Your task to perform on an android device: change alarm snooze length Image 0: 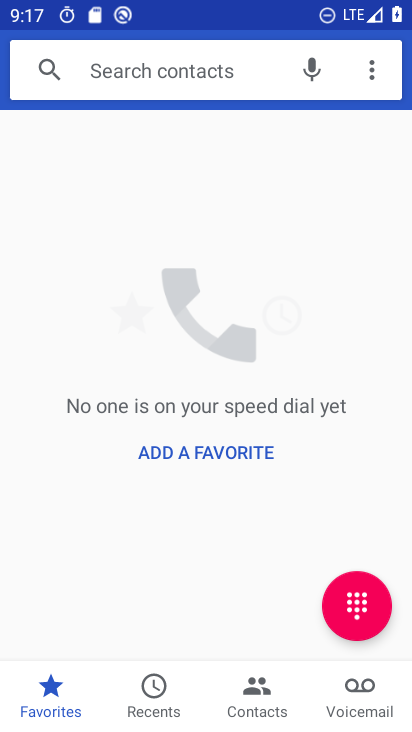
Step 0: press home button
Your task to perform on an android device: change alarm snooze length Image 1: 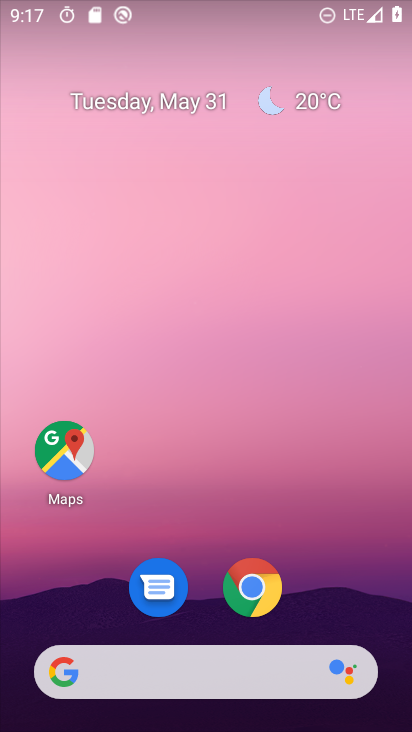
Step 1: drag from (208, 616) to (248, 80)
Your task to perform on an android device: change alarm snooze length Image 2: 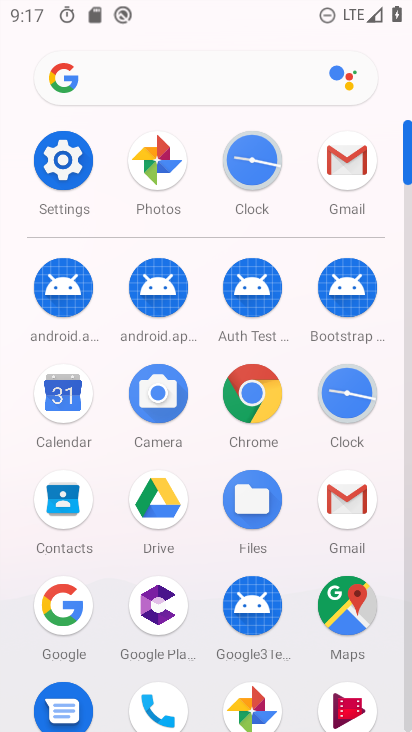
Step 2: click (244, 161)
Your task to perform on an android device: change alarm snooze length Image 3: 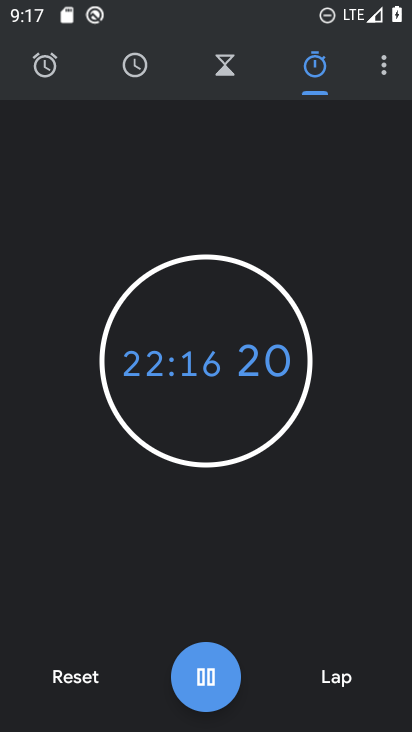
Step 3: click (387, 50)
Your task to perform on an android device: change alarm snooze length Image 4: 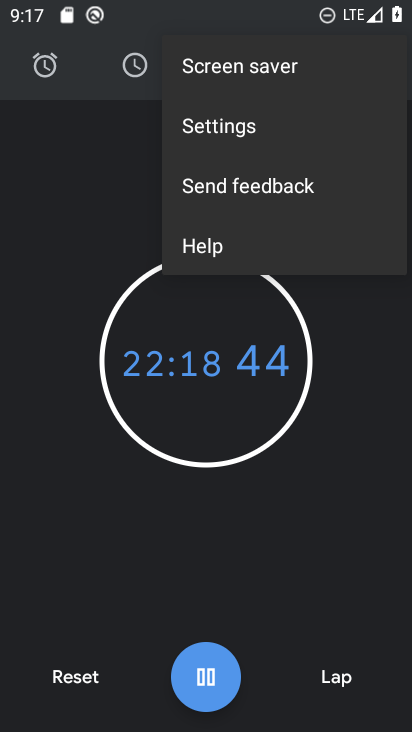
Step 4: click (277, 130)
Your task to perform on an android device: change alarm snooze length Image 5: 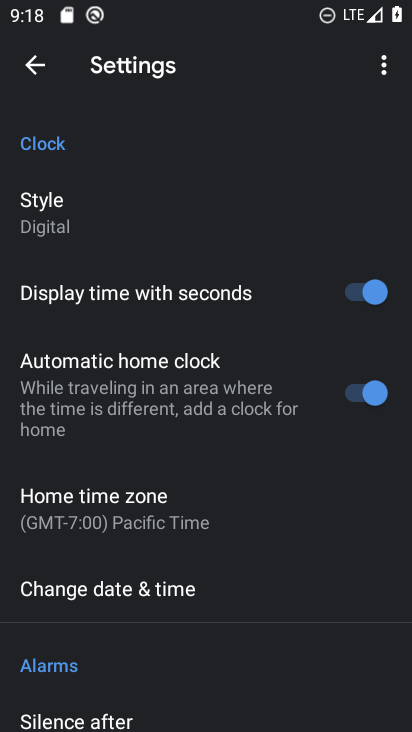
Step 5: drag from (160, 538) to (186, 165)
Your task to perform on an android device: change alarm snooze length Image 6: 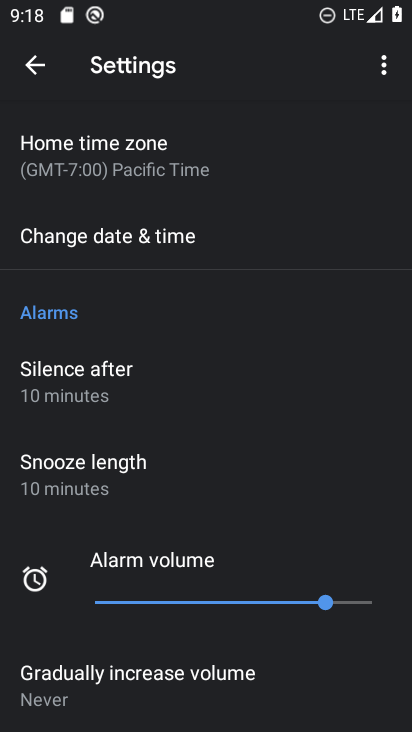
Step 6: click (95, 471)
Your task to perform on an android device: change alarm snooze length Image 7: 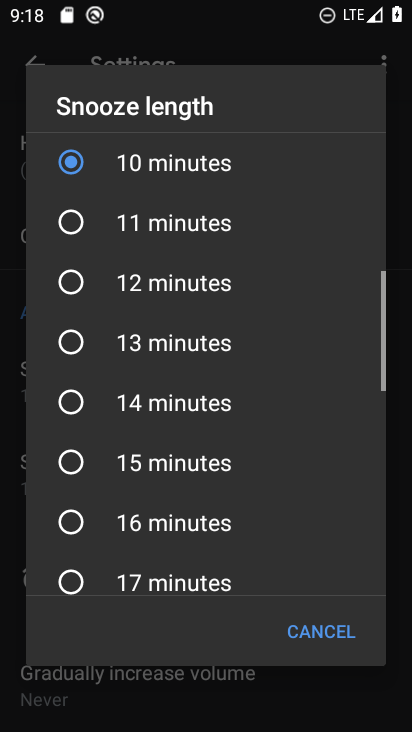
Step 7: click (83, 585)
Your task to perform on an android device: change alarm snooze length Image 8: 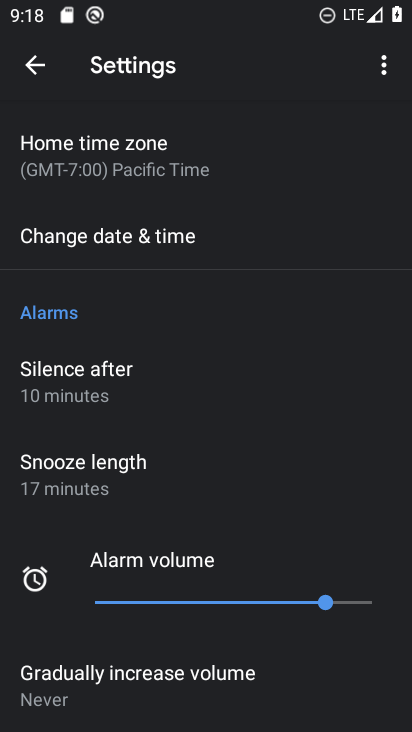
Step 8: task complete